Your task to perform on an android device: Open battery settings Image 0: 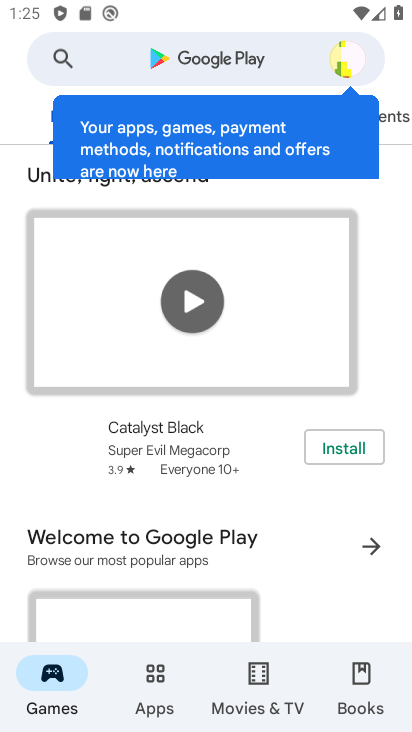
Step 0: press home button
Your task to perform on an android device: Open battery settings Image 1: 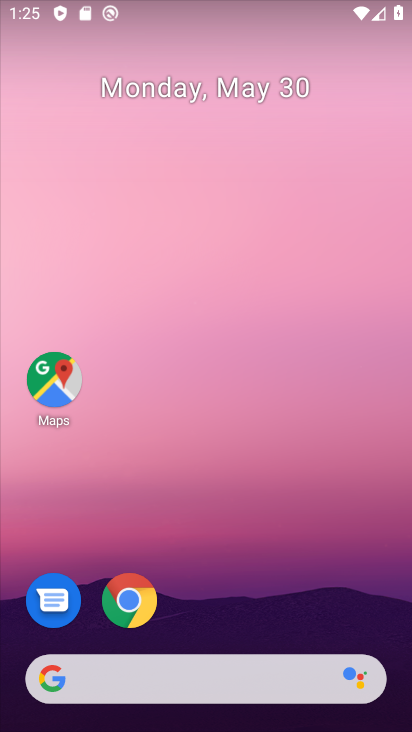
Step 1: drag from (187, 646) to (155, 93)
Your task to perform on an android device: Open battery settings Image 2: 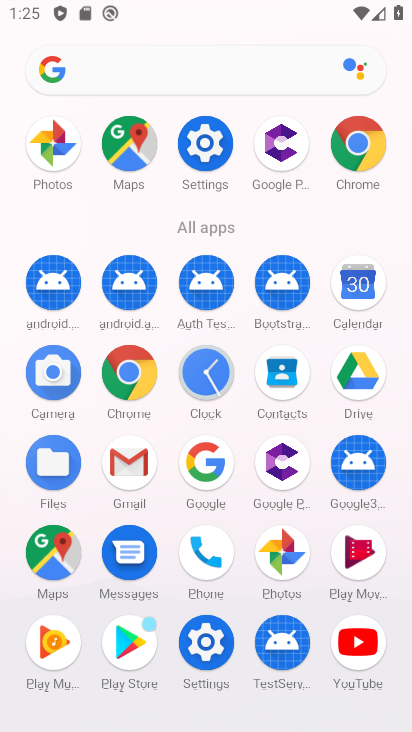
Step 2: click (193, 134)
Your task to perform on an android device: Open battery settings Image 3: 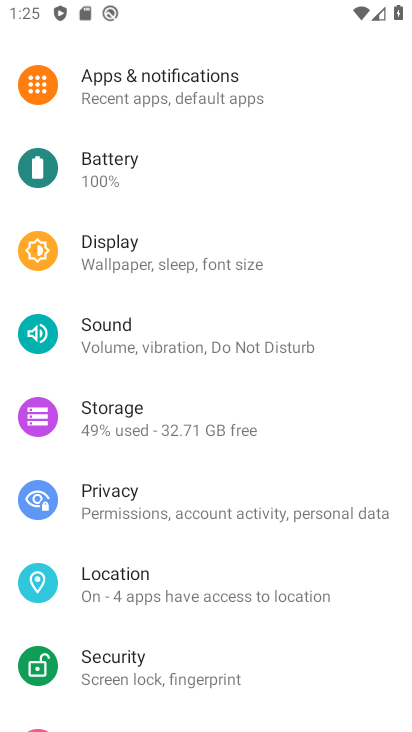
Step 3: click (109, 182)
Your task to perform on an android device: Open battery settings Image 4: 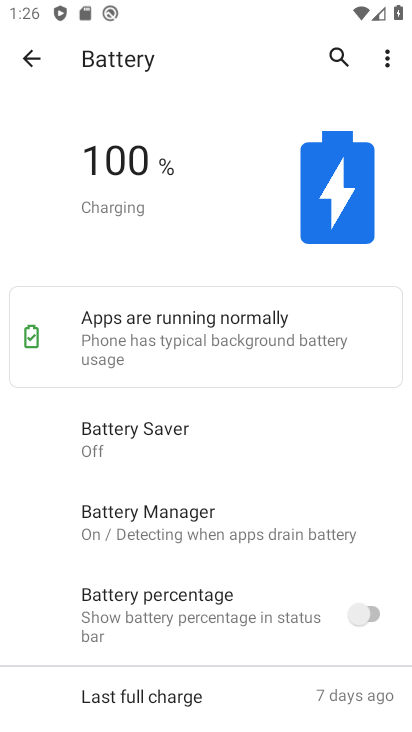
Step 4: task complete